Your task to perform on an android device: clear history in the chrome app Image 0: 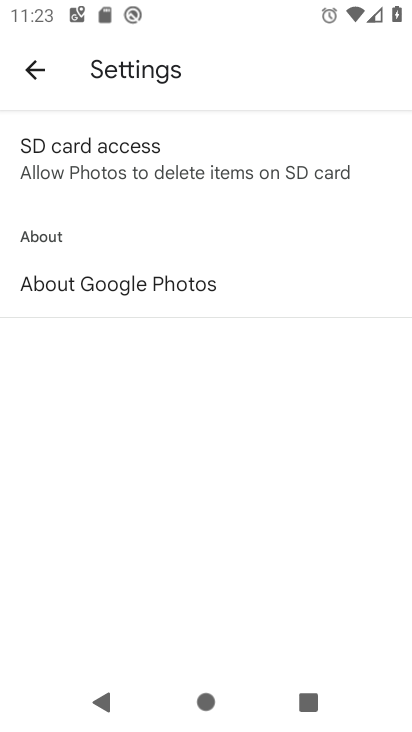
Step 0: press home button
Your task to perform on an android device: clear history in the chrome app Image 1: 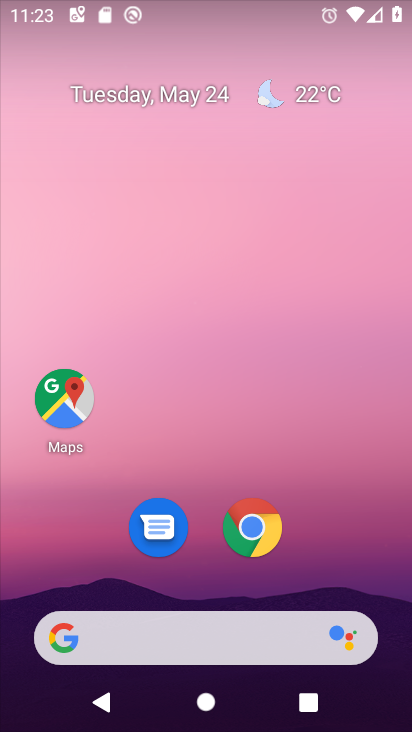
Step 1: click (241, 540)
Your task to perform on an android device: clear history in the chrome app Image 2: 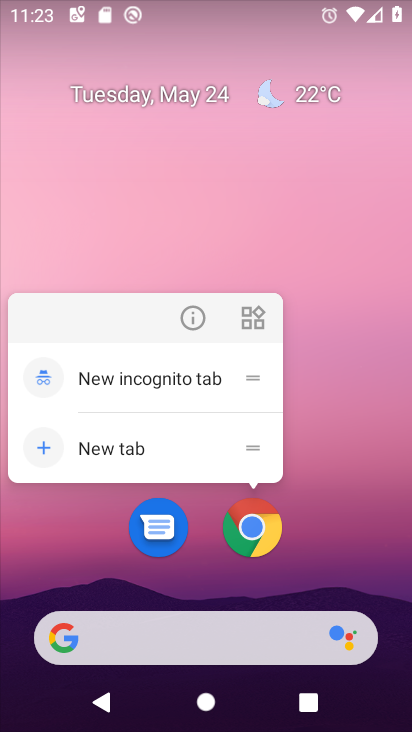
Step 2: click (256, 531)
Your task to perform on an android device: clear history in the chrome app Image 3: 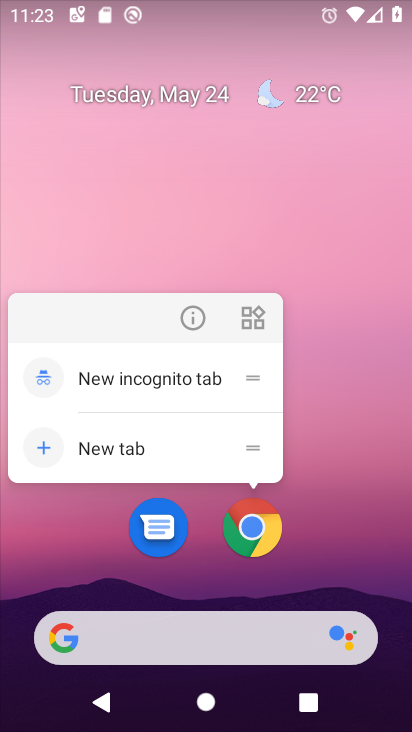
Step 3: click (238, 548)
Your task to perform on an android device: clear history in the chrome app Image 4: 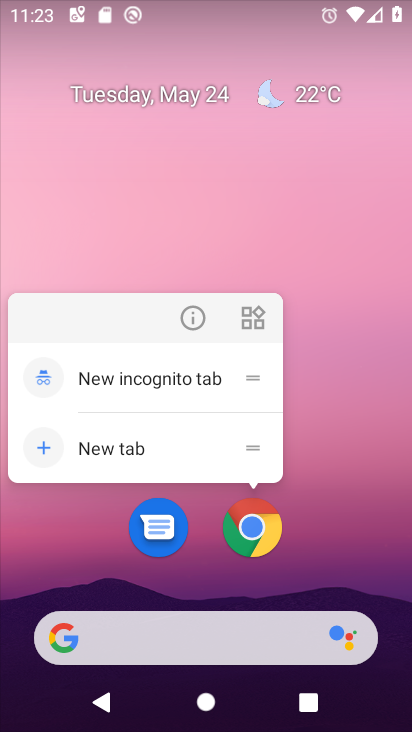
Step 4: click (254, 541)
Your task to perform on an android device: clear history in the chrome app Image 5: 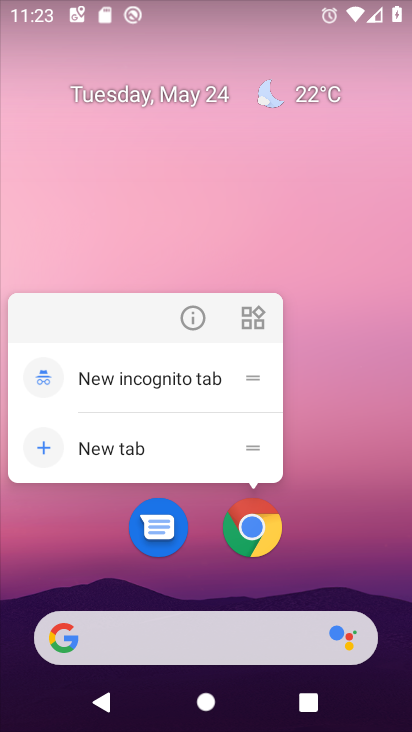
Step 5: click (252, 544)
Your task to perform on an android device: clear history in the chrome app Image 6: 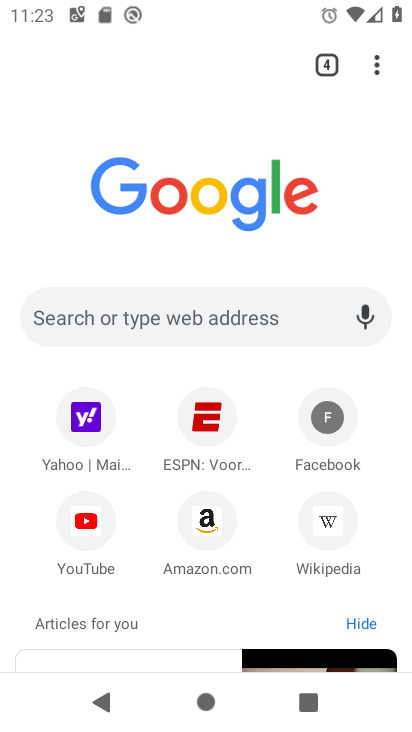
Step 6: drag from (373, 68) to (203, 350)
Your task to perform on an android device: clear history in the chrome app Image 7: 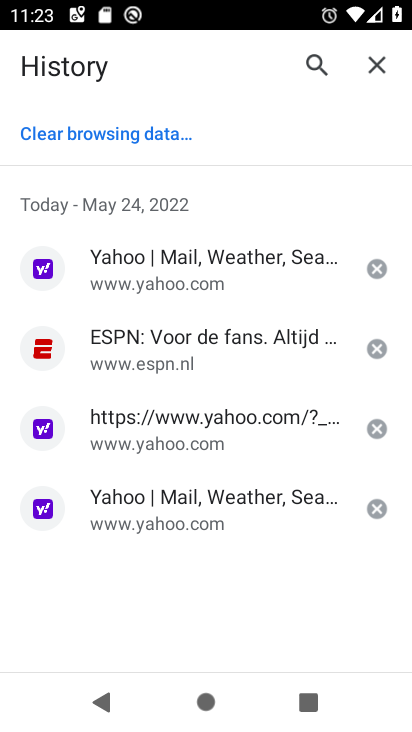
Step 7: click (145, 129)
Your task to perform on an android device: clear history in the chrome app Image 8: 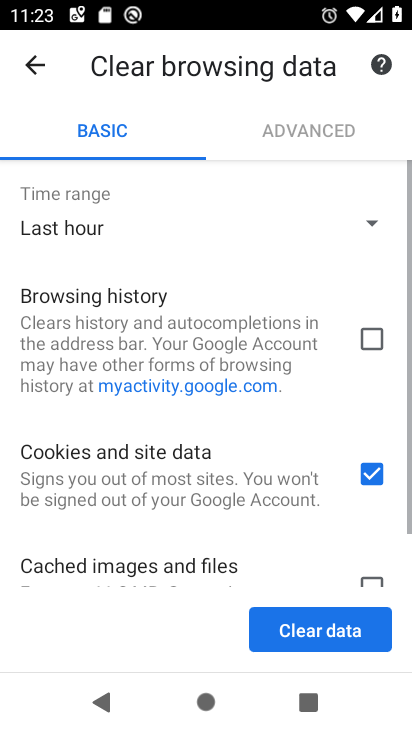
Step 8: click (369, 341)
Your task to perform on an android device: clear history in the chrome app Image 9: 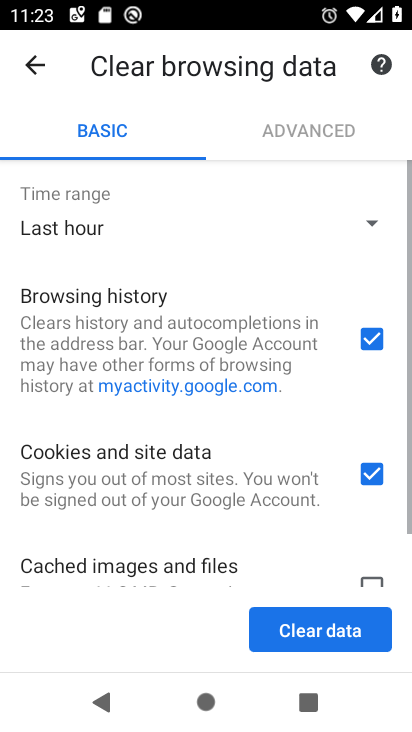
Step 9: drag from (235, 547) to (369, 117)
Your task to perform on an android device: clear history in the chrome app Image 10: 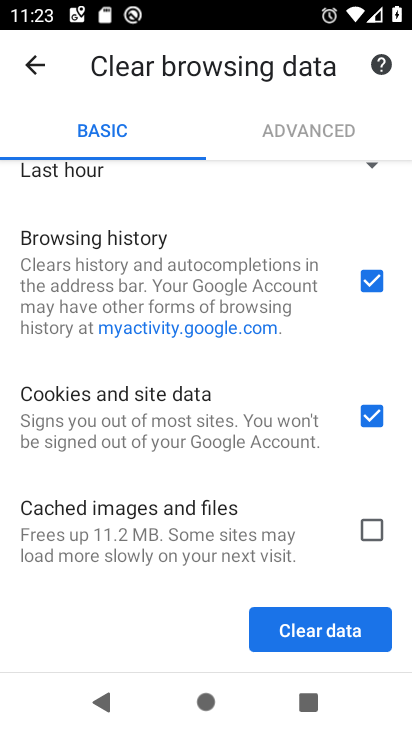
Step 10: click (367, 532)
Your task to perform on an android device: clear history in the chrome app Image 11: 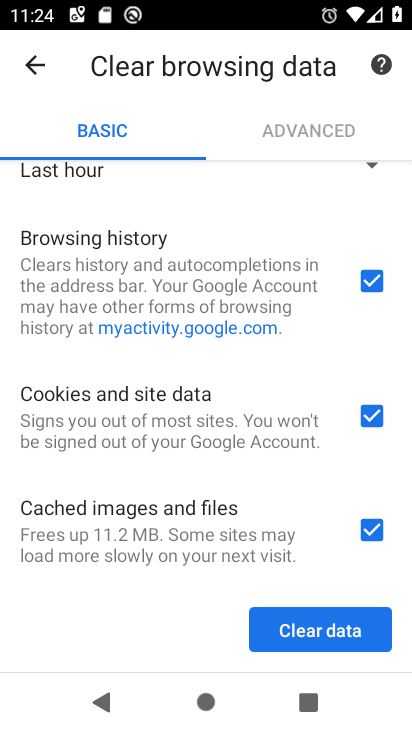
Step 11: click (302, 628)
Your task to perform on an android device: clear history in the chrome app Image 12: 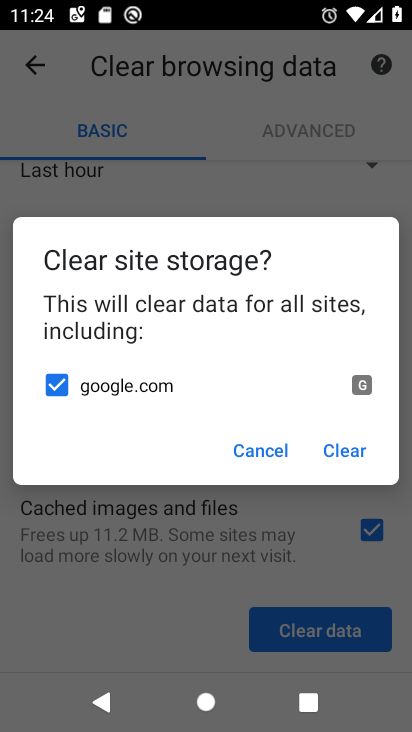
Step 12: click (354, 447)
Your task to perform on an android device: clear history in the chrome app Image 13: 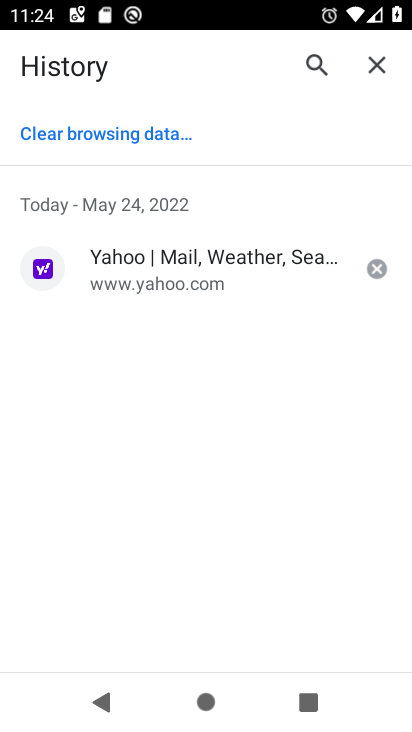
Step 13: task complete